Your task to perform on an android device: Open wifi settings Image 0: 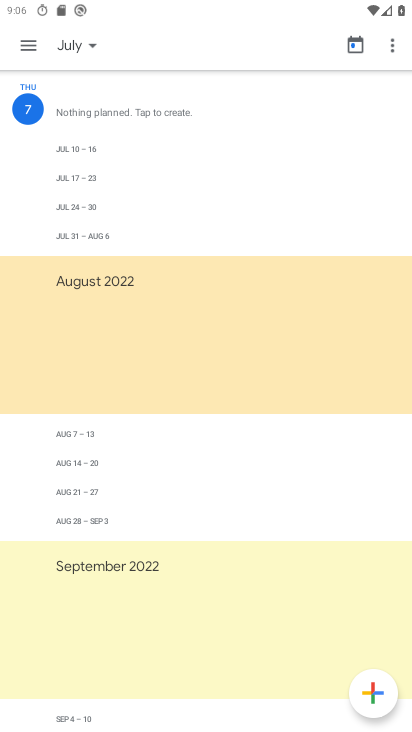
Step 0: press home button
Your task to perform on an android device: Open wifi settings Image 1: 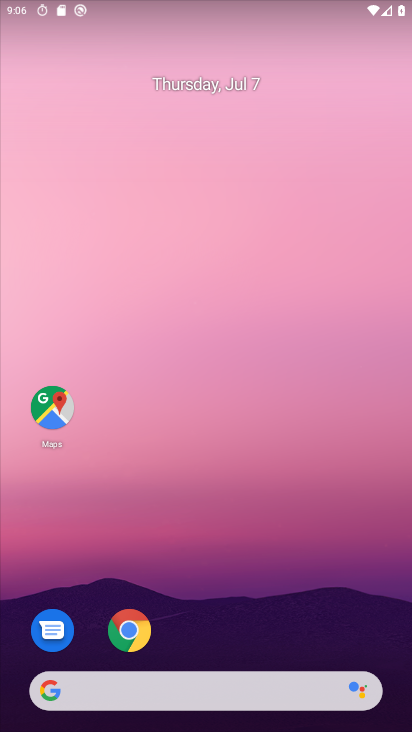
Step 1: drag from (110, 551) to (234, 214)
Your task to perform on an android device: Open wifi settings Image 2: 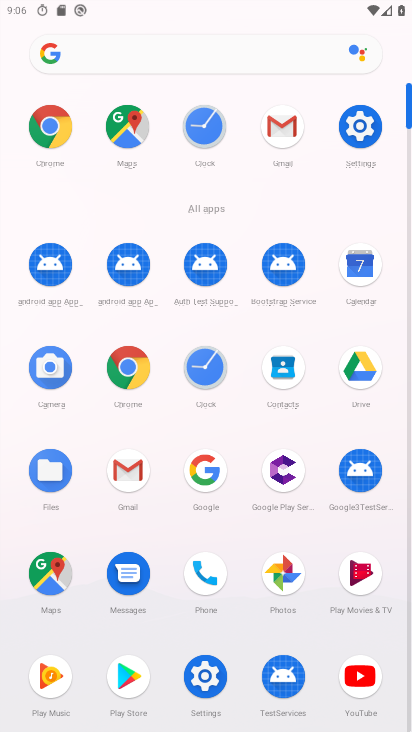
Step 2: click (195, 696)
Your task to perform on an android device: Open wifi settings Image 3: 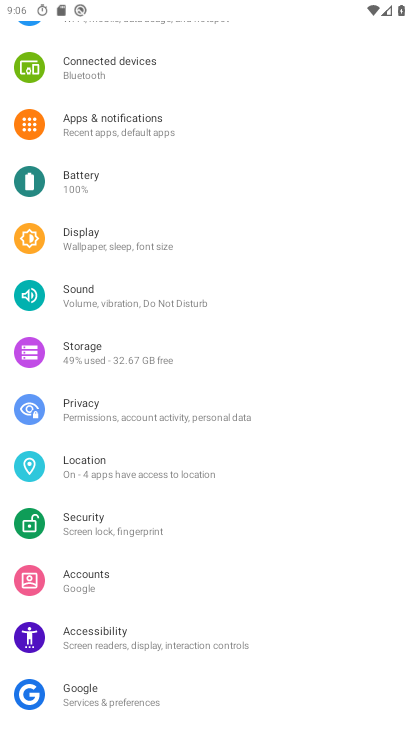
Step 3: drag from (219, 63) to (280, 671)
Your task to perform on an android device: Open wifi settings Image 4: 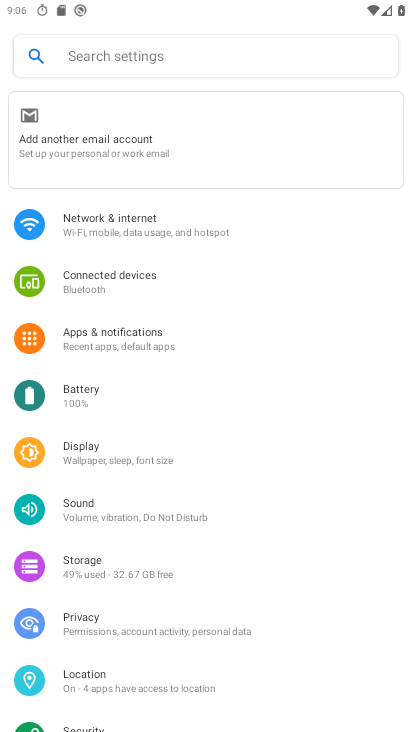
Step 4: click (123, 228)
Your task to perform on an android device: Open wifi settings Image 5: 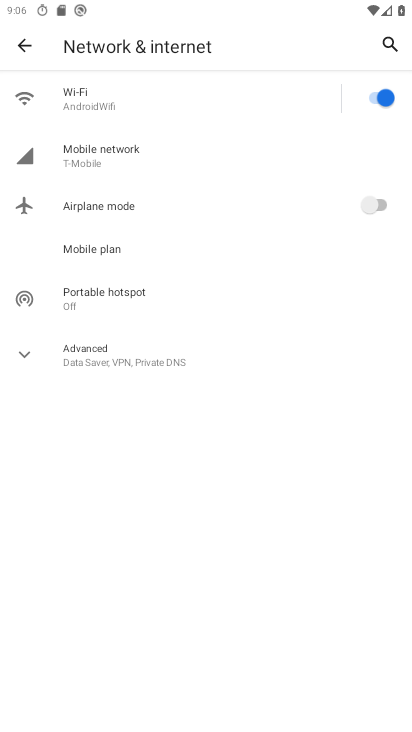
Step 5: click (68, 82)
Your task to perform on an android device: Open wifi settings Image 6: 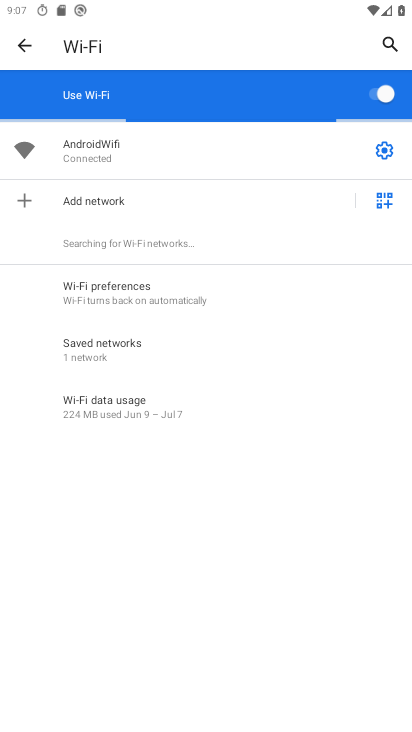
Step 6: task complete